Your task to perform on an android device: Search for Italian restaurants on Maps Image 0: 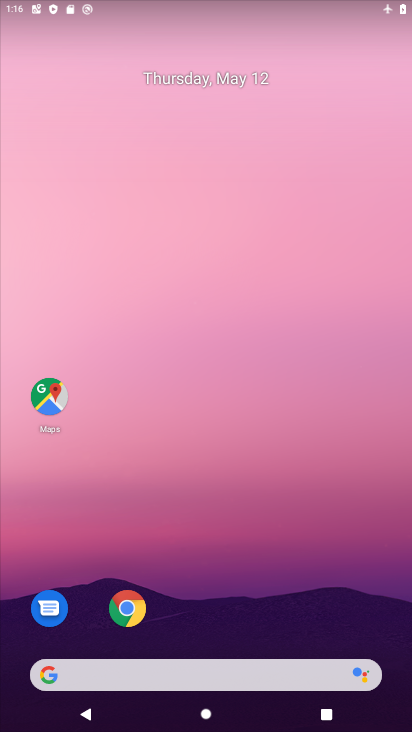
Step 0: click (49, 395)
Your task to perform on an android device: Search for Italian restaurants on Maps Image 1: 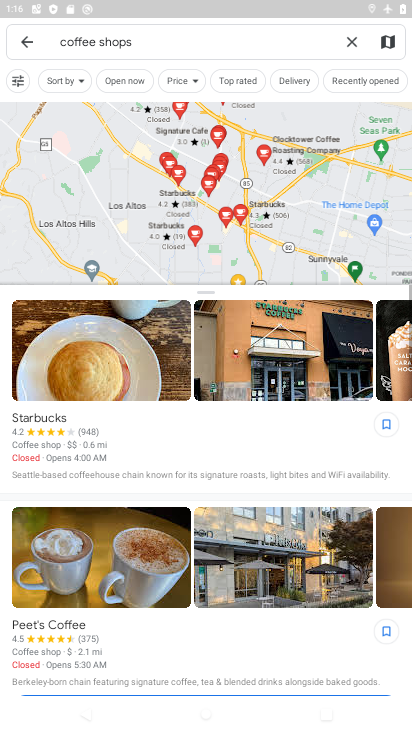
Step 1: click (356, 40)
Your task to perform on an android device: Search for Italian restaurants on Maps Image 2: 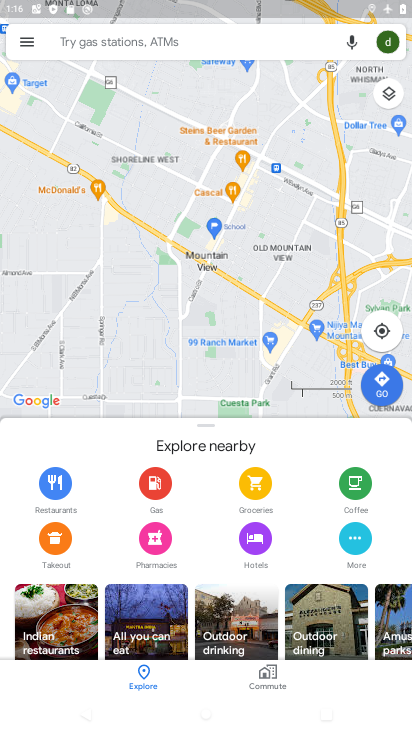
Step 2: click (130, 43)
Your task to perform on an android device: Search for Italian restaurants on Maps Image 3: 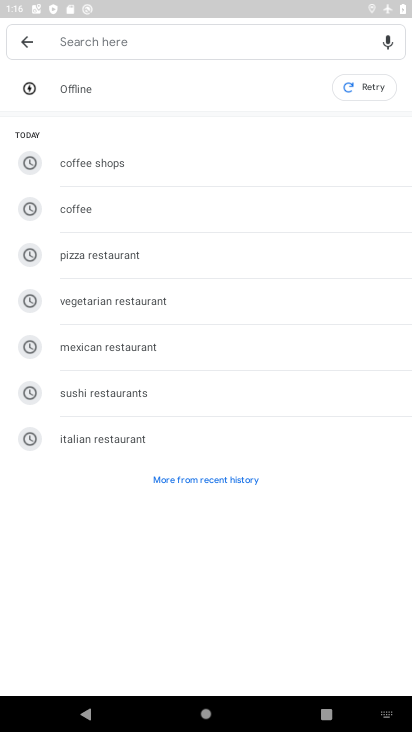
Step 3: type "italian restaurant"
Your task to perform on an android device: Search for Italian restaurants on Maps Image 4: 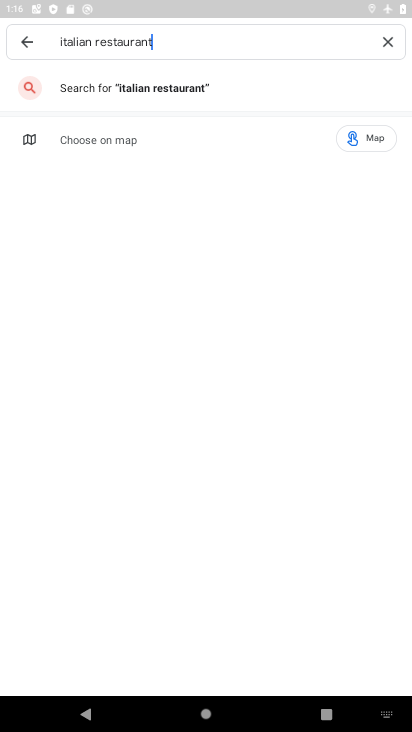
Step 4: click (175, 86)
Your task to perform on an android device: Search for Italian restaurants on Maps Image 5: 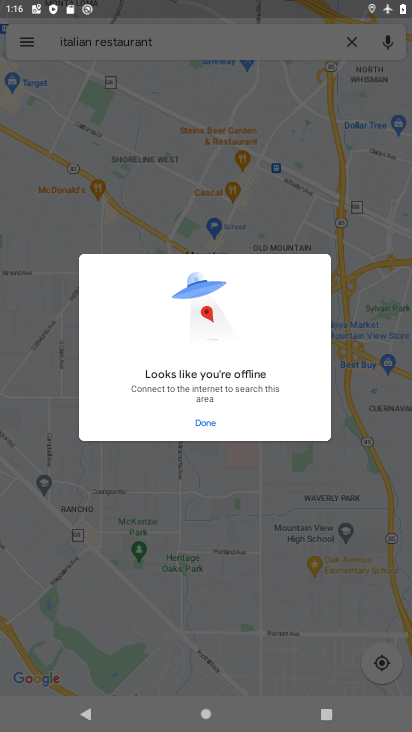
Step 5: task complete